Your task to perform on an android device: toggle javascript in the chrome app Image 0: 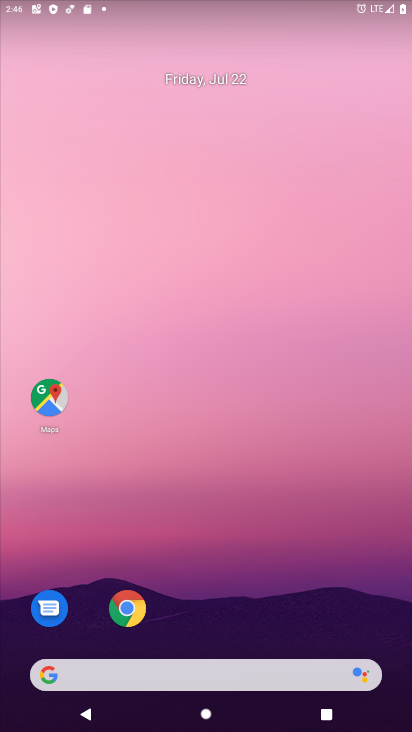
Step 0: click (128, 608)
Your task to perform on an android device: toggle javascript in the chrome app Image 1: 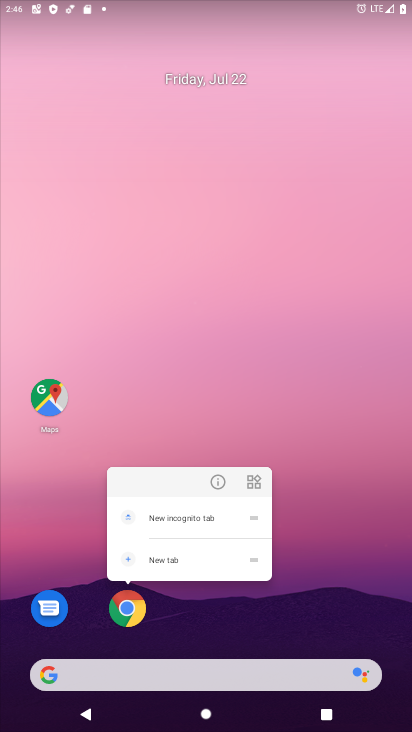
Step 1: click (128, 608)
Your task to perform on an android device: toggle javascript in the chrome app Image 2: 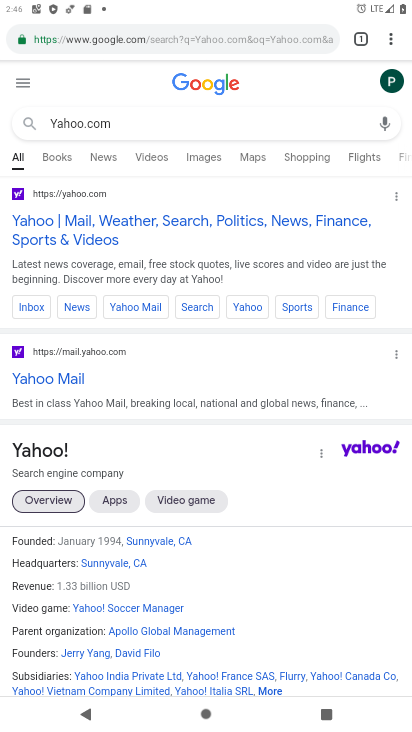
Step 2: click (128, 605)
Your task to perform on an android device: toggle javascript in the chrome app Image 3: 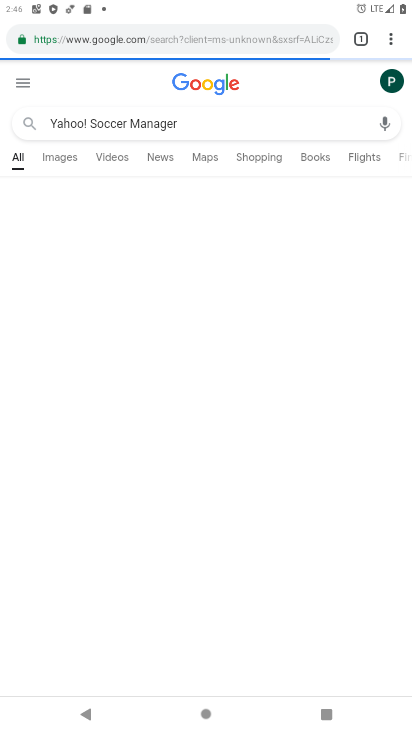
Step 3: click (291, 39)
Your task to perform on an android device: toggle javascript in the chrome app Image 4: 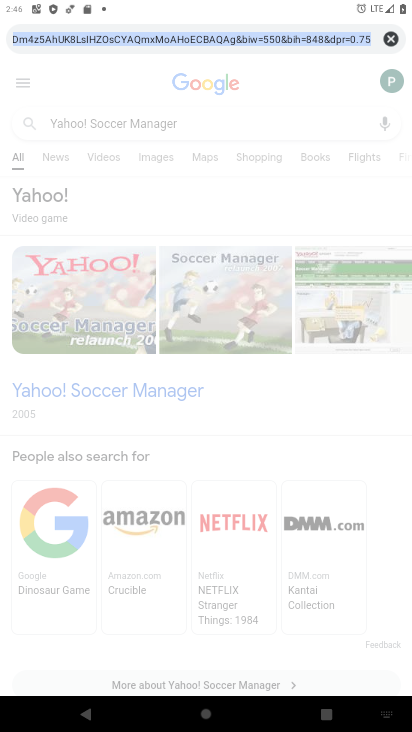
Step 4: click (386, 36)
Your task to perform on an android device: toggle javascript in the chrome app Image 5: 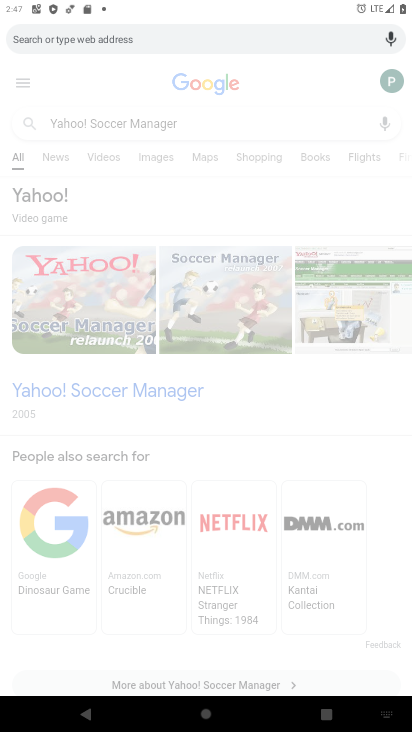
Step 5: press back button
Your task to perform on an android device: toggle javascript in the chrome app Image 6: 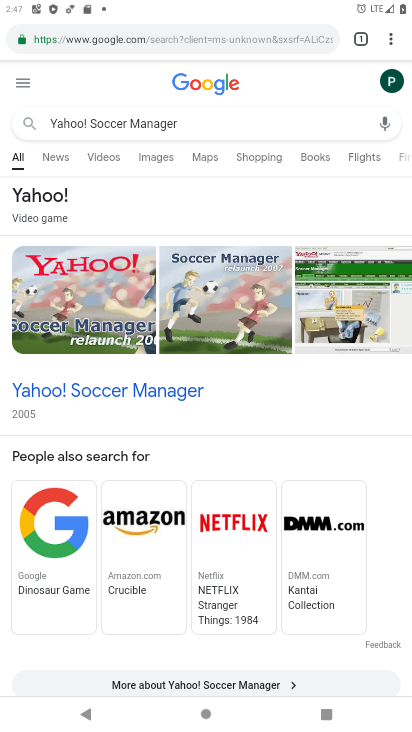
Step 6: click (393, 35)
Your task to perform on an android device: toggle javascript in the chrome app Image 7: 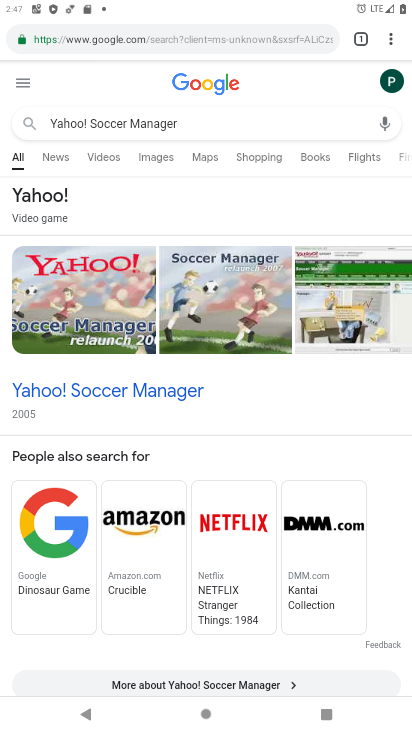
Step 7: click (391, 39)
Your task to perform on an android device: toggle javascript in the chrome app Image 8: 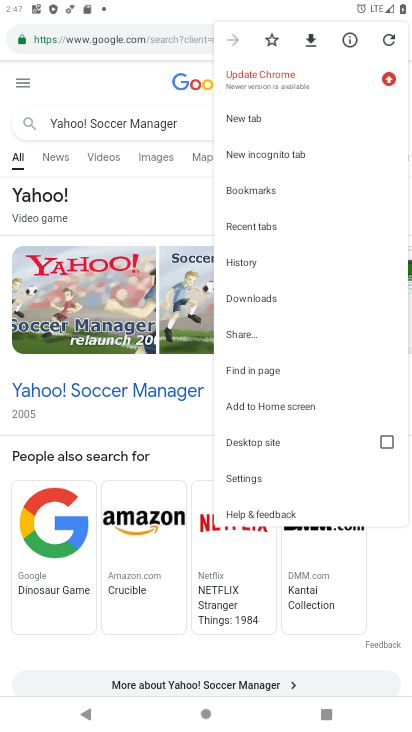
Step 8: click (248, 478)
Your task to perform on an android device: toggle javascript in the chrome app Image 9: 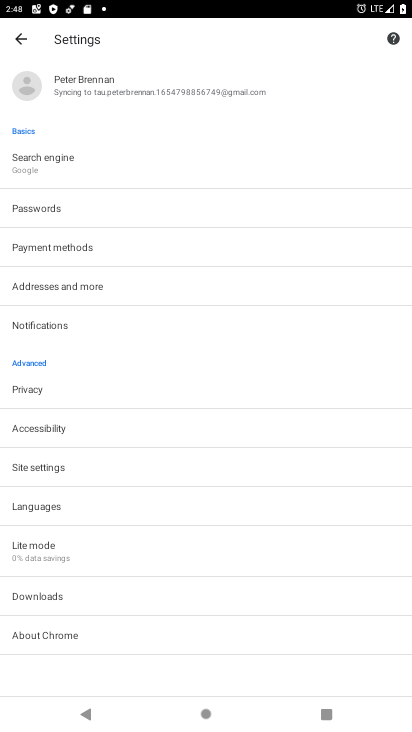
Step 9: click (49, 467)
Your task to perform on an android device: toggle javascript in the chrome app Image 10: 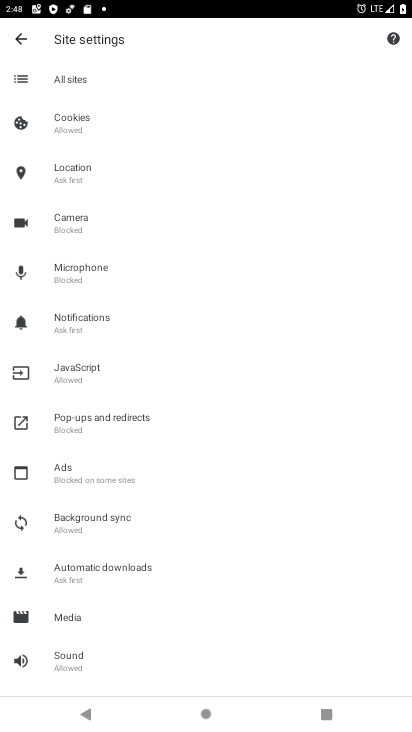
Step 10: click (81, 366)
Your task to perform on an android device: toggle javascript in the chrome app Image 11: 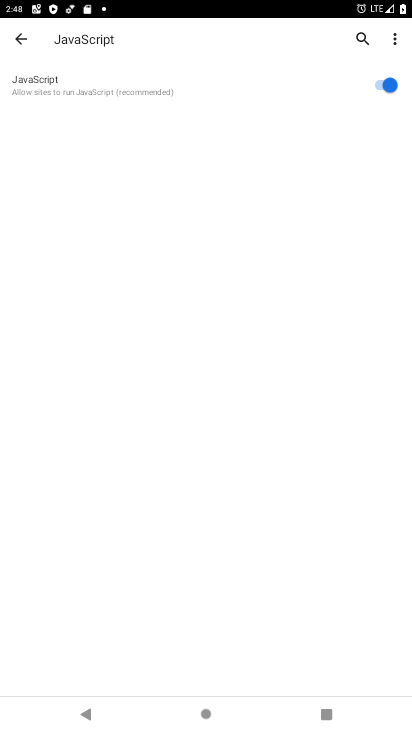
Step 11: click (378, 87)
Your task to perform on an android device: toggle javascript in the chrome app Image 12: 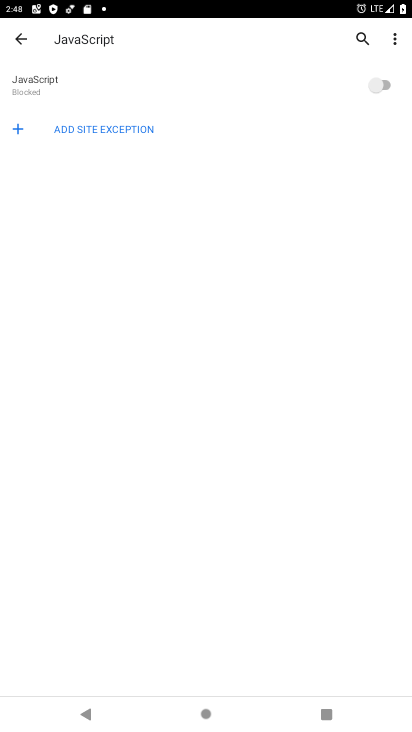
Step 12: task complete